Your task to perform on an android device: Go to location settings Image 0: 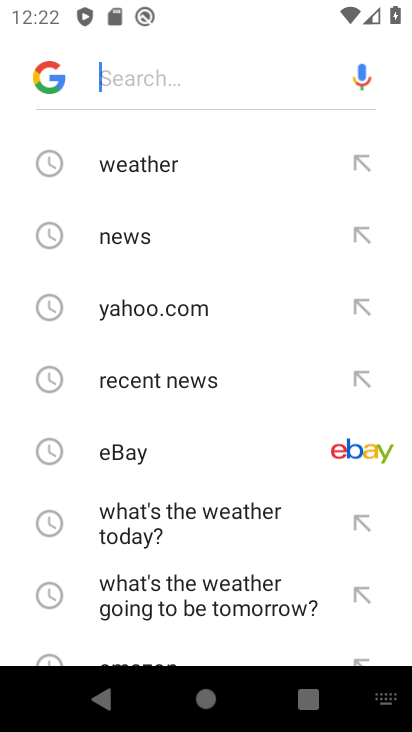
Step 0: press home button
Your task to perform on an android device: Go to location settings Image 1: 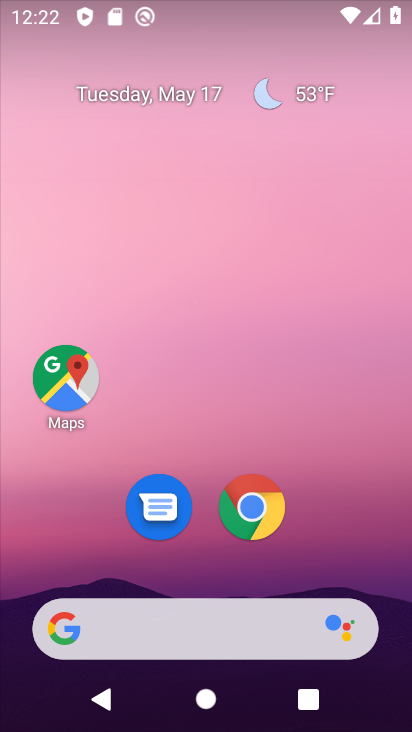
Step 1: drag from (334, 548) to (272, 92)
Your task to perform on an android device: Go to location settings Image 2: 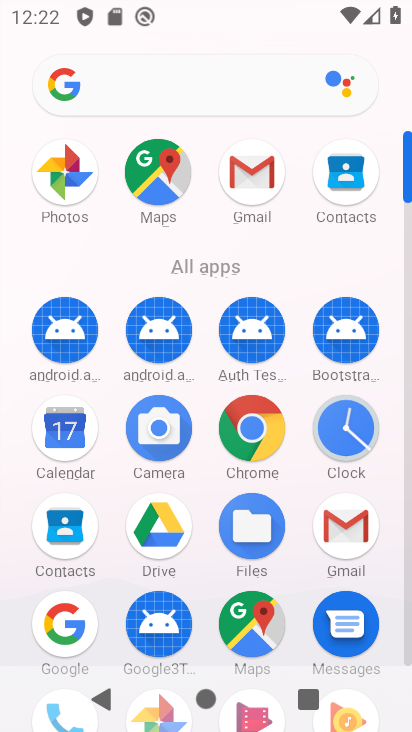
Step 2: drag from (293, 482) to (252, 245)
Your task to perform on an android device: Go to location settings Image 3: 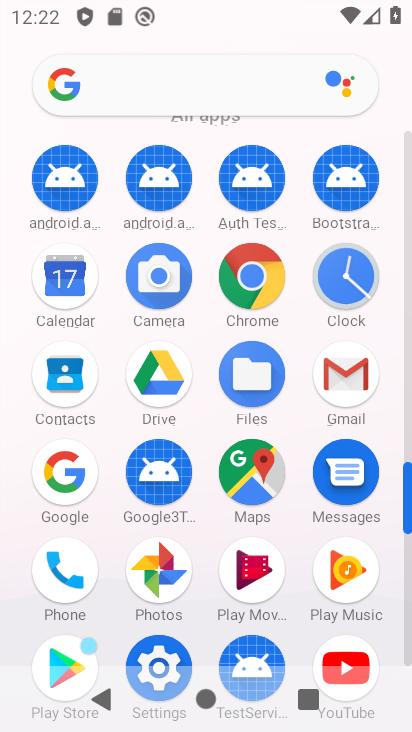
Step 3: click (151, 645)
Your task to perform on an android device: Go to location settings Image 4: 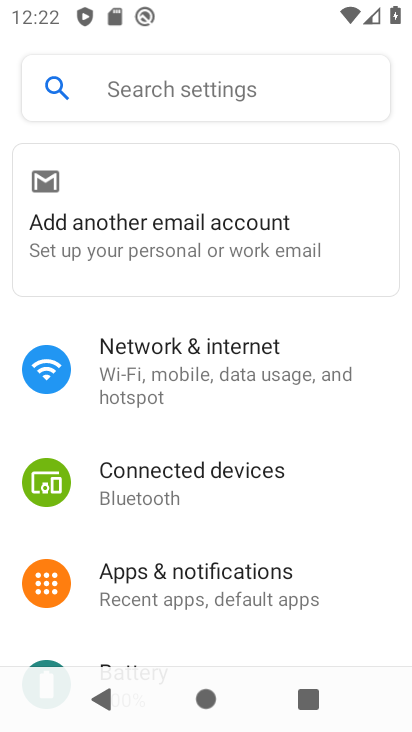
Step 4: drag from (211, 595) to (204, 271)
Your task to perform on an android device: Go to location settings Image 5: 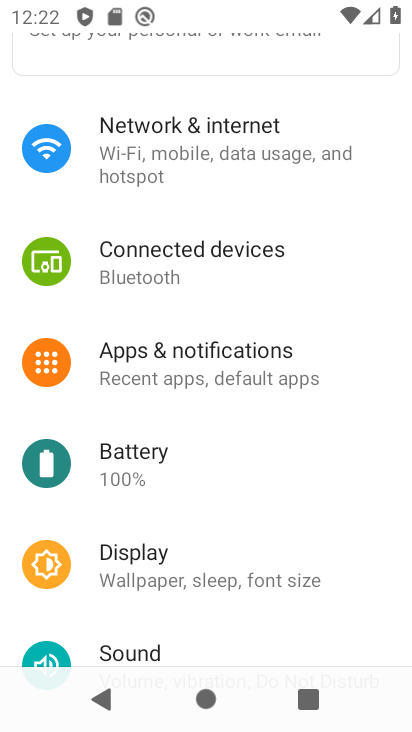
Step 5: drag from (207, 524) to (183, 339)
Your task to perform on an android device: Go to location settings Image 6: 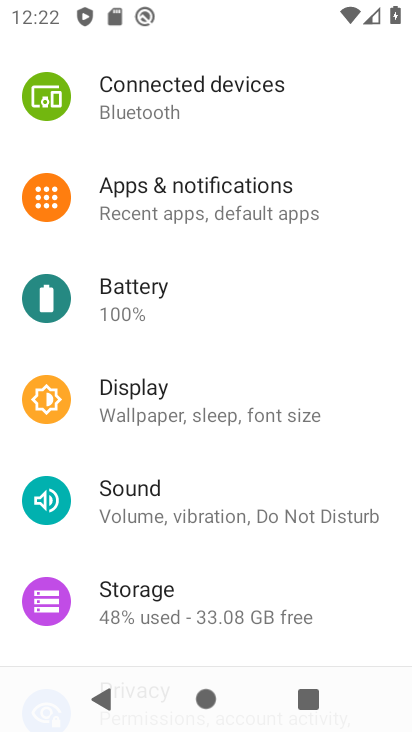
Step 6: drag from (215, 559) to (199, 443)
Your task to perform on an android device: Go to location settings Image 7: 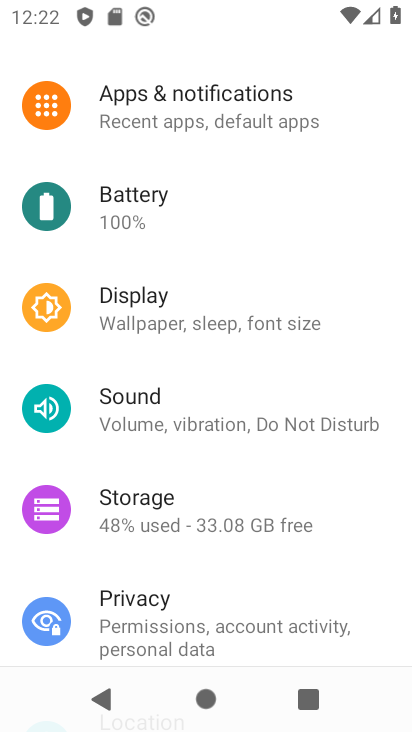
Step 7: drag from (182, 550) to (173, 428)
Your task to perform on an android device: Go to location settings Image 8: 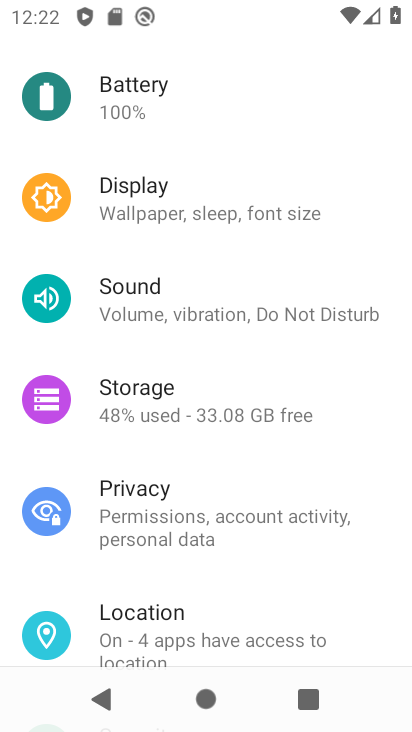
Step 8: click (203, 629)
Your task to perform on an android device: Go to location settings Image 9: 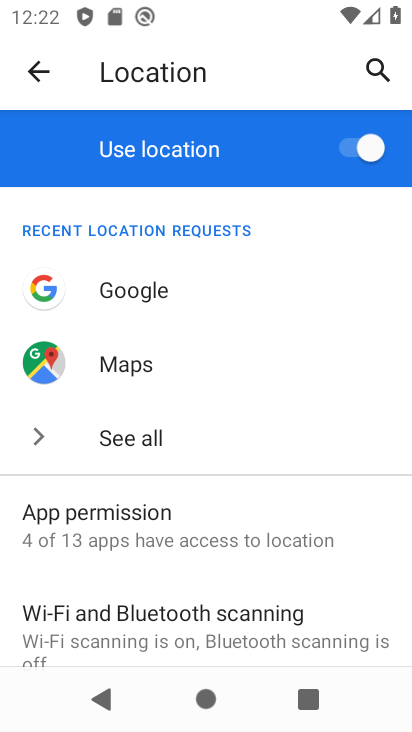
Step 9: task complete